Your task to perform on an android device: Is it going to rain tomorrow? Image 0: 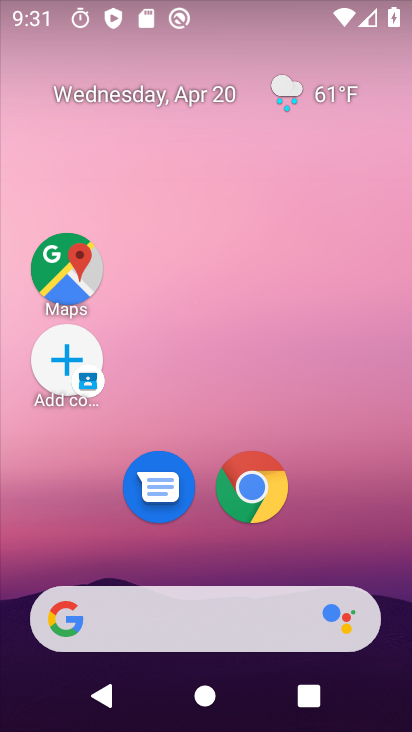
Step 0: drag from (344, 521) to (351, 71)
Your task to perform on an android device: Is it going to rain tomorrow? Image 1: 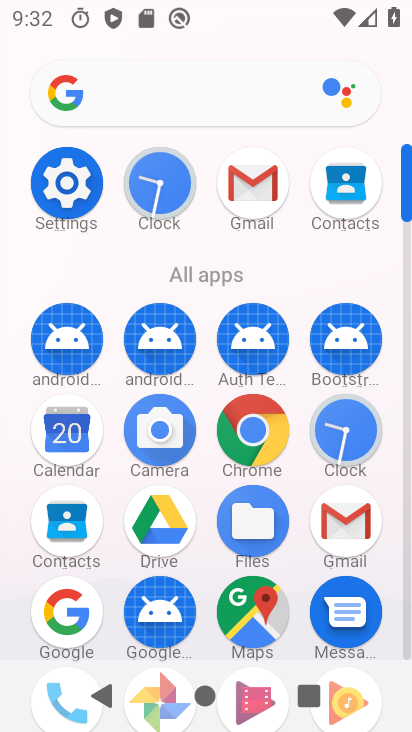
Step 1: click (178, 109)
Your task to perform on an android device: Is it going to rain tomorrow? Image 2: 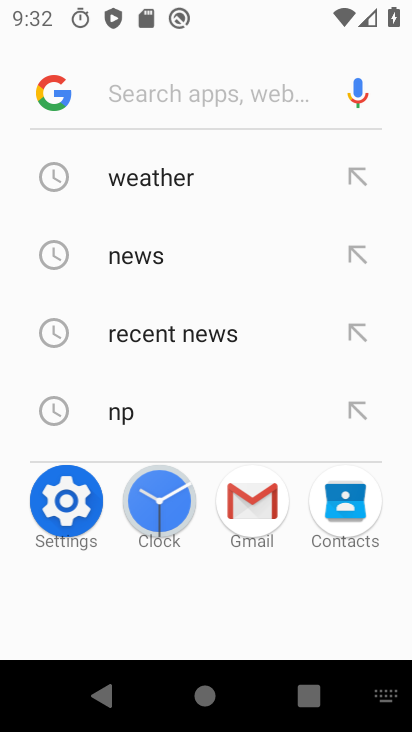
Step 2: type "is it going to rain tomorrow"
Your task to perform on an android device: Is it going to rain tomorrow? Image 3: 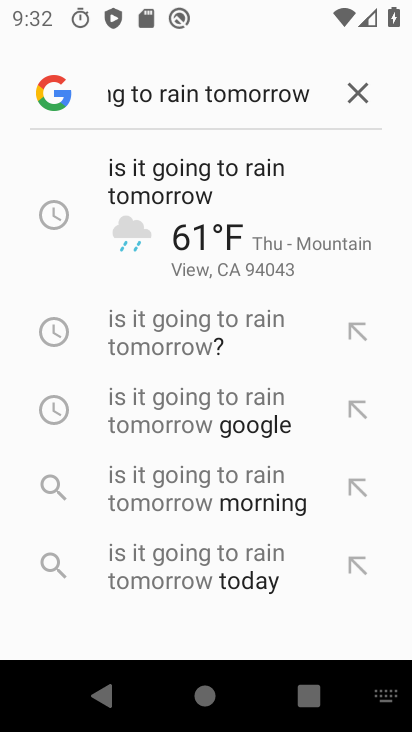
Step 3: click (134, 185)
Your task to perform on an android device: Is it going to rain tomorrow? Image 4: 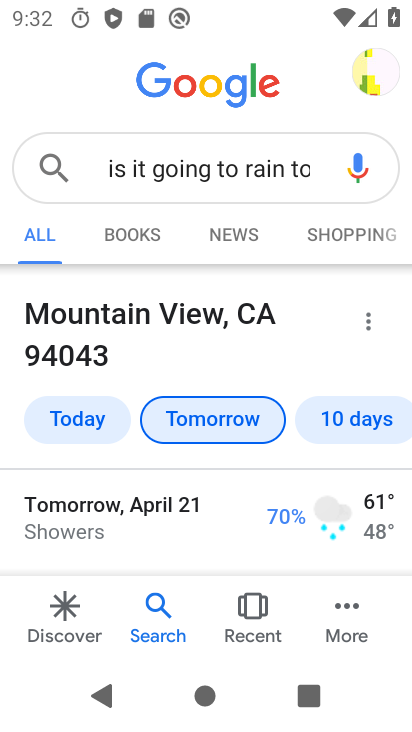
Step 4: task complete